Your task to perform on an android device: open app "Facebook Messenger" Image 0: 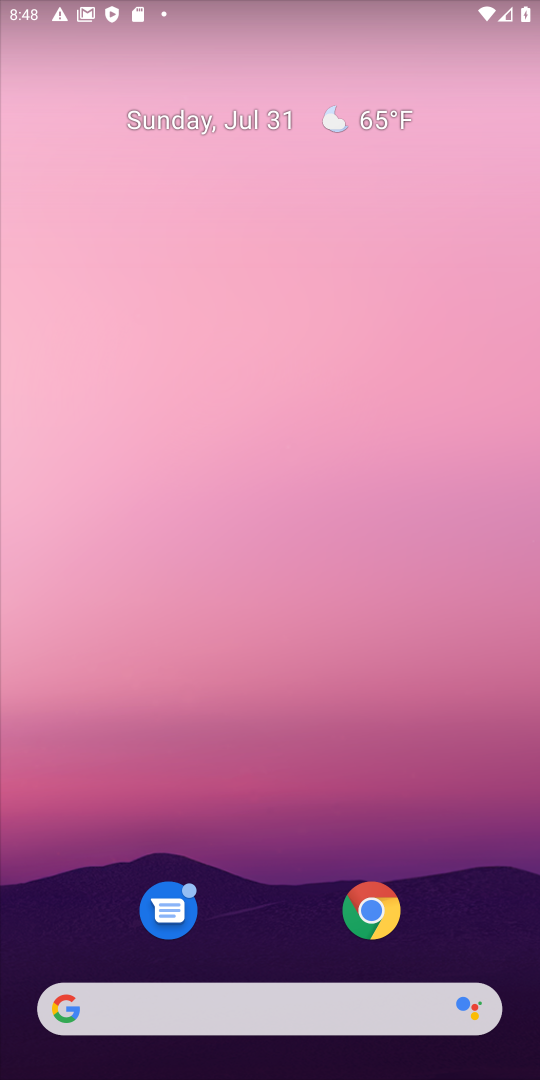
Step 0: drag from (289, 881) to (289, 36)
Your task to perform on an android device: open app "Facebook Messenger" Image 1: 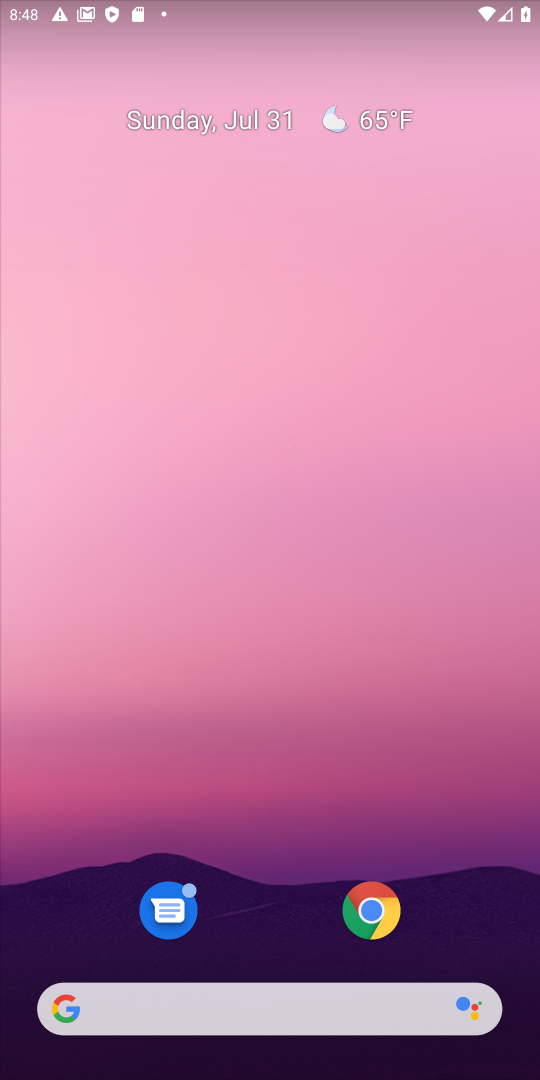
Step 1: drag from (227, 789) to (274, 60)
Your task to perform on an android device: open app "Facebook Messenger" Image 2: 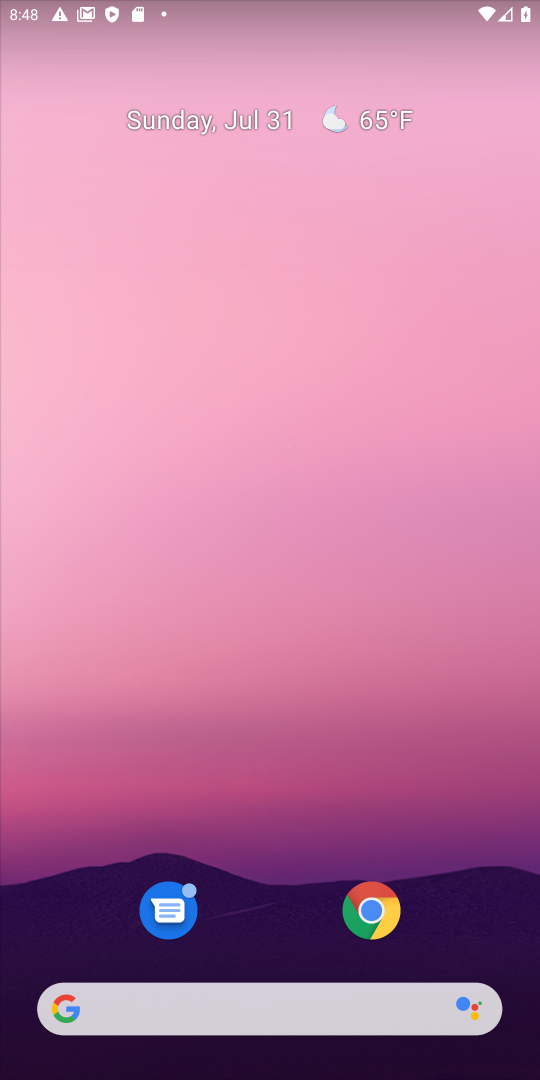
Step 2: drag from (240, 928) to (282, 346)
Your task to perform on an android device: open app "Facebook Messenger" Image 3: 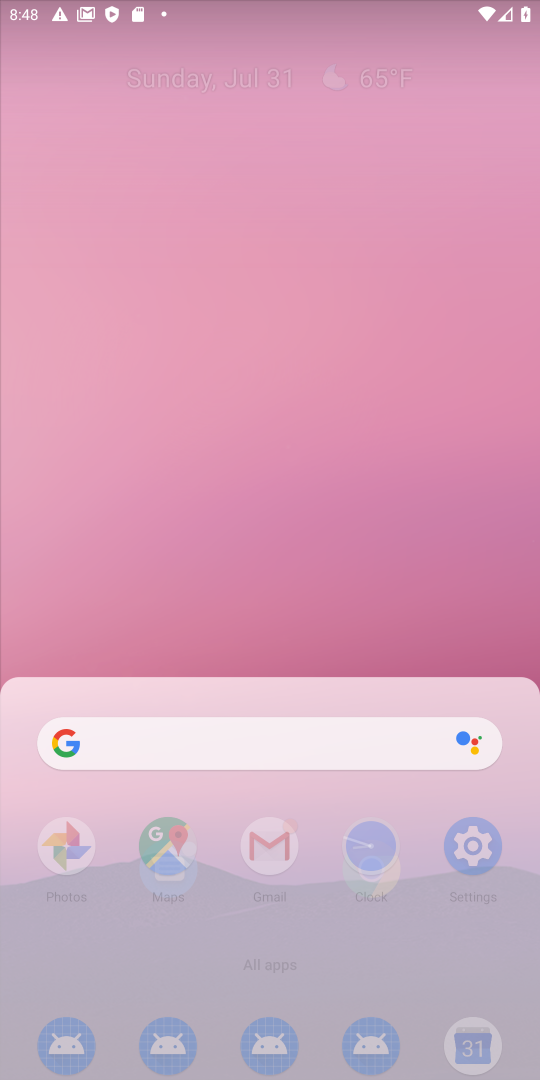
Step 3: drag from (287, 845) to (290, 357)
Your task to perform on an android device: open app "Facebook Messenger" Image 4: 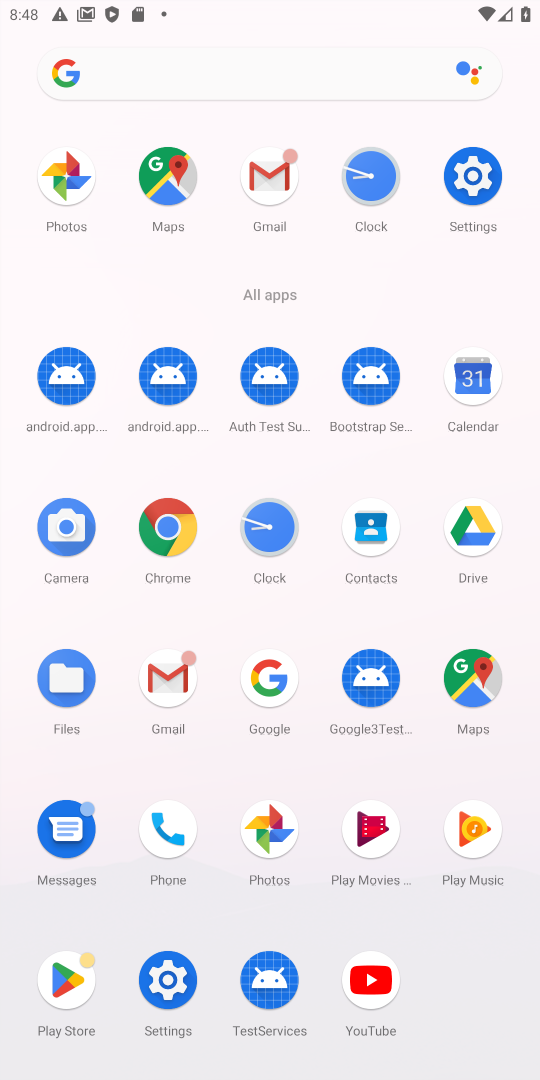
Step 4: click (74, 989)
Your task to perform on an android device: open app "Facebook Messenger" Image 5: 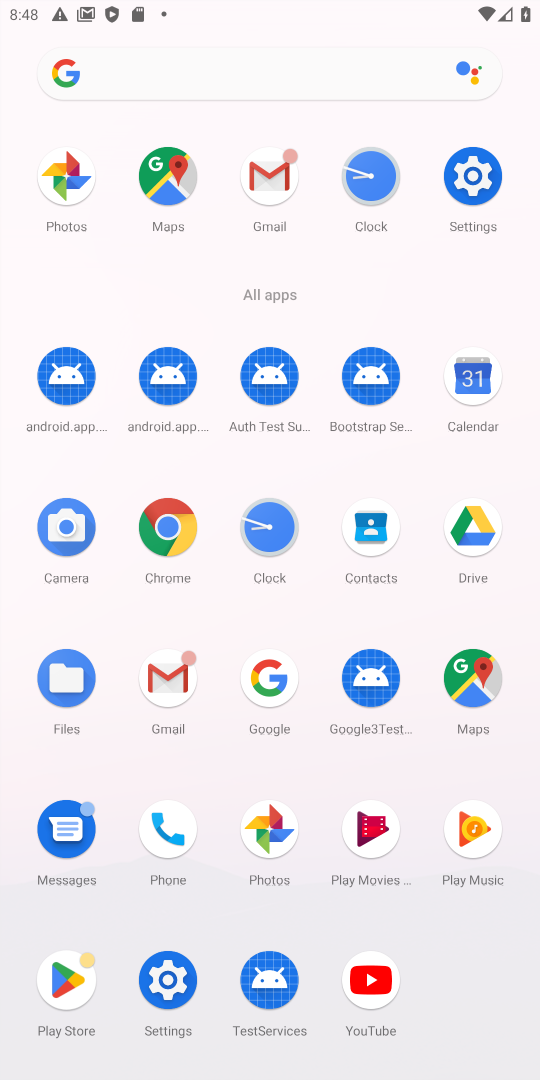
Step 5: click (70, 986)
Your task to perform on an android device: open app "Facebook Messenger" Image 6: 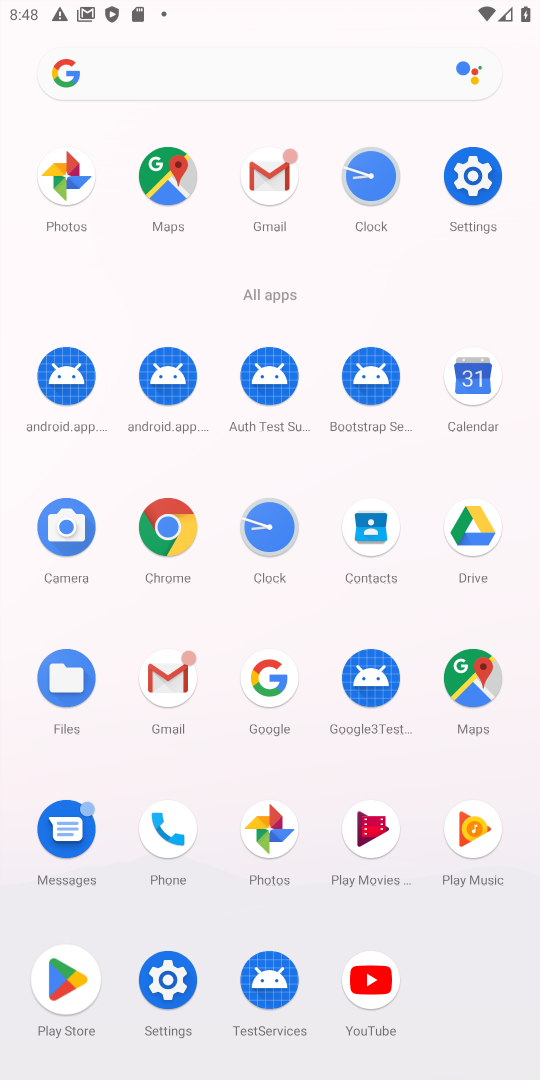
Step 6: click (72, 986)
Your task to perform on an android device: open app "Facebook Messenger" Image 7: 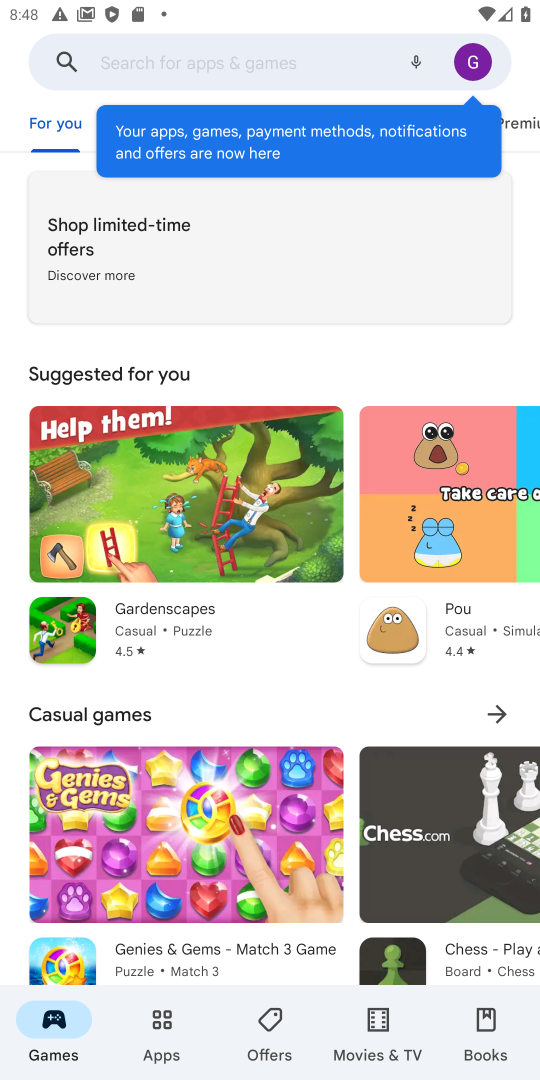
Step 7: click (252, 58)
Your task to perform on an android device: open app "Facebook Messenger" Image 8: 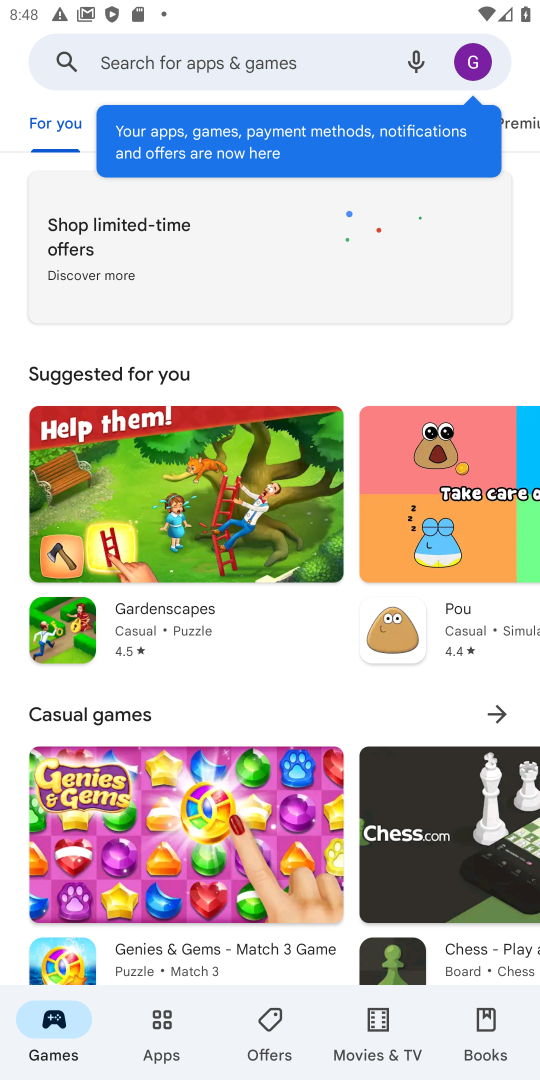
Step 8: click (235, 74)
Your task to perform on an android device: open app "Facebook Messenger" Image 9: 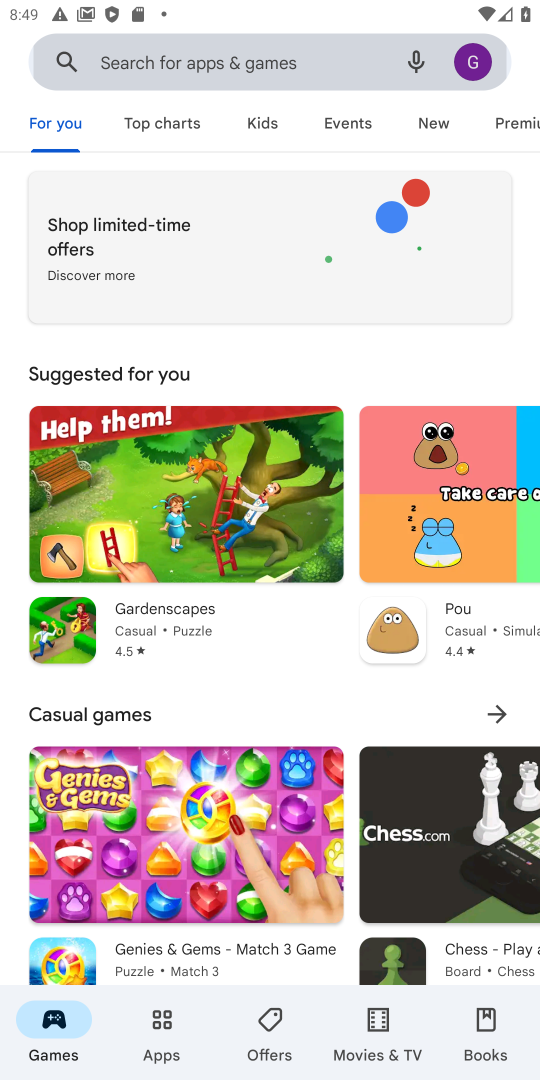
Step 9: click (227, 56)
Your task to perform on an android device: open app "Facebook Messenger" Image 10: 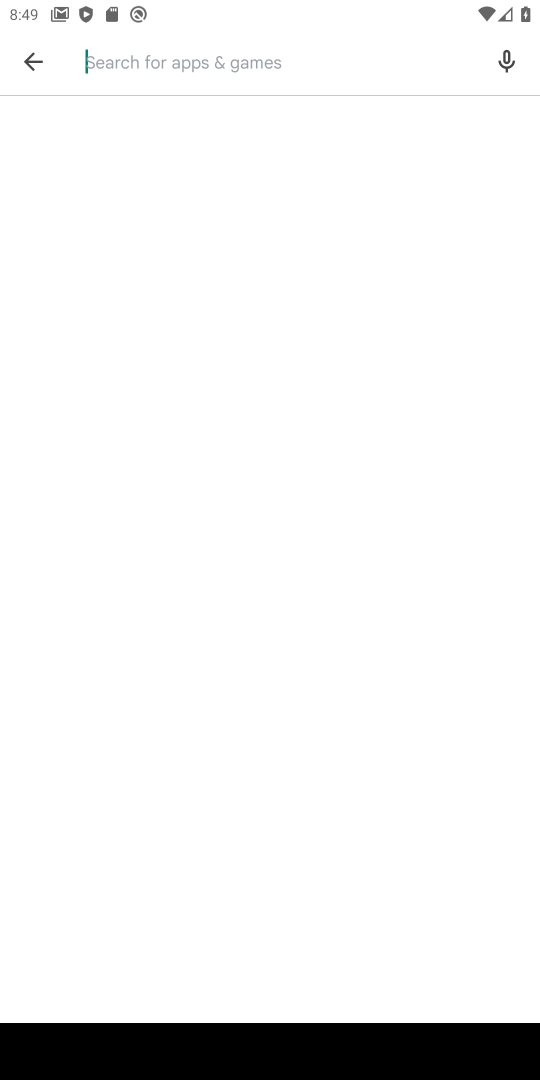
Step 10: type "Facebook messenger"
Your task to perform on an android device: open app "Facebook Messenger" Image 11: 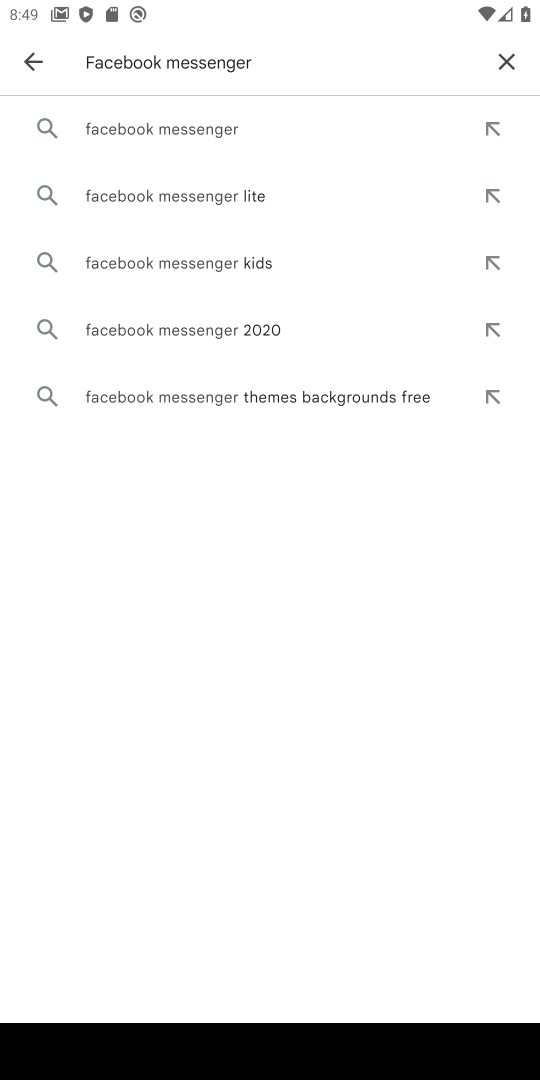
Step 11: click (171, 128)
Your task to perform on an android device: open app "Facebook Messenger" Image 12: 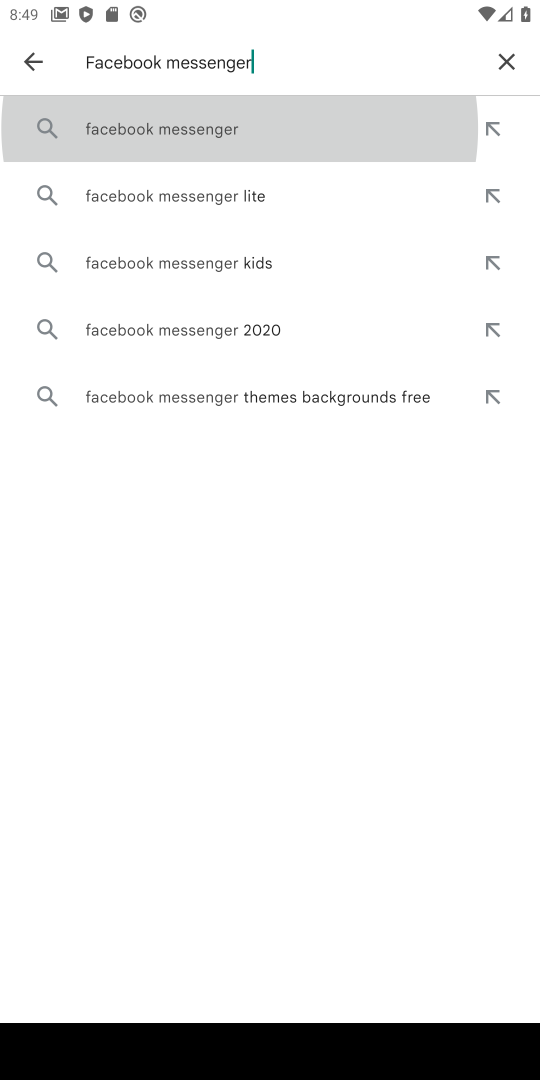
Step 12: click (168, 131)
Your task to perform on an android device: open app "Facebook Messenger" Image 13: 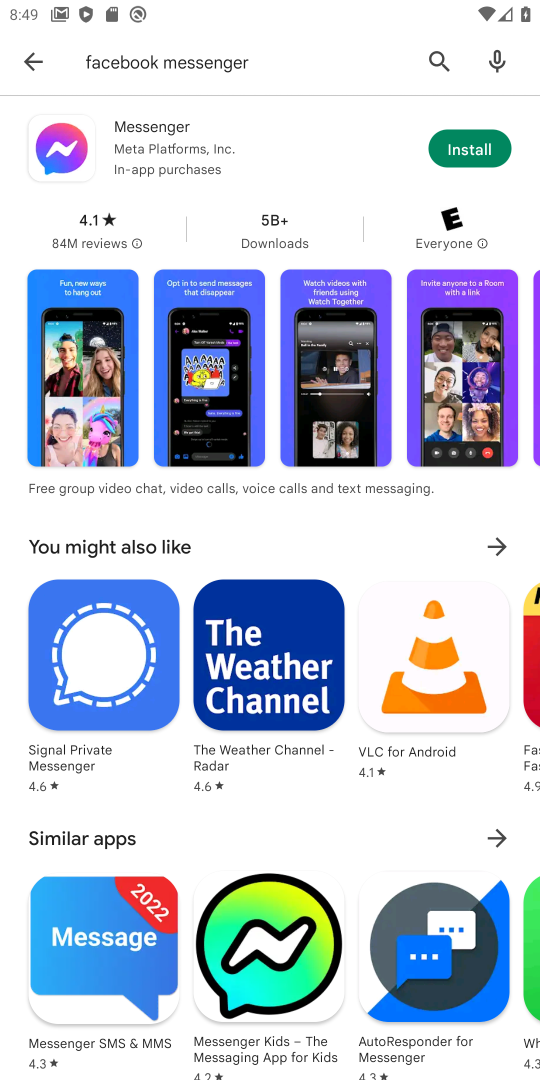
Step 13: click (467, 146)
Your task to perform on an android device: open app "Facebook Messenger" Image 14: 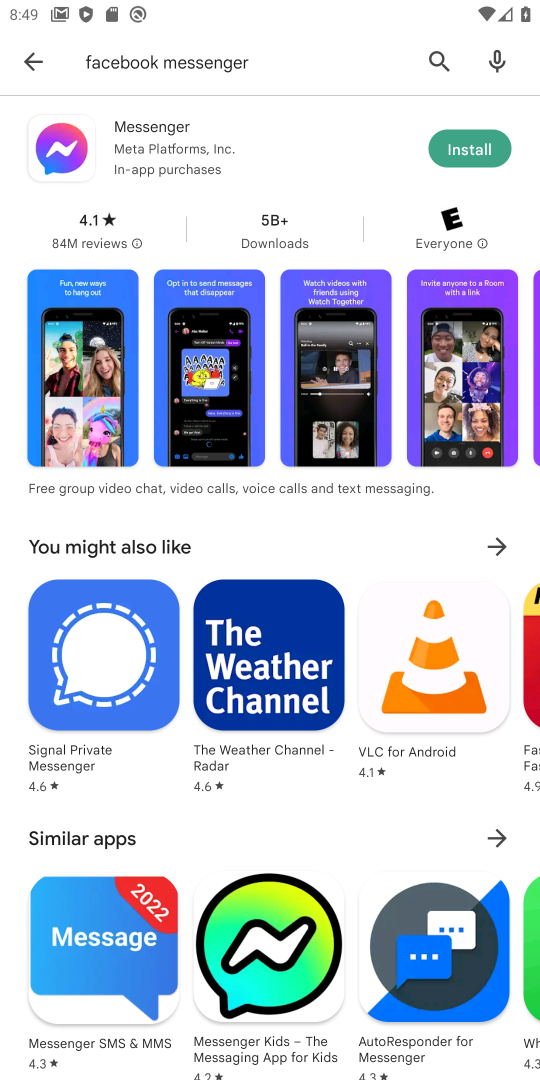
Step 14: click (467, 146)
Your task to perform on an android device: open app "Facebook Messenger" Image 15: 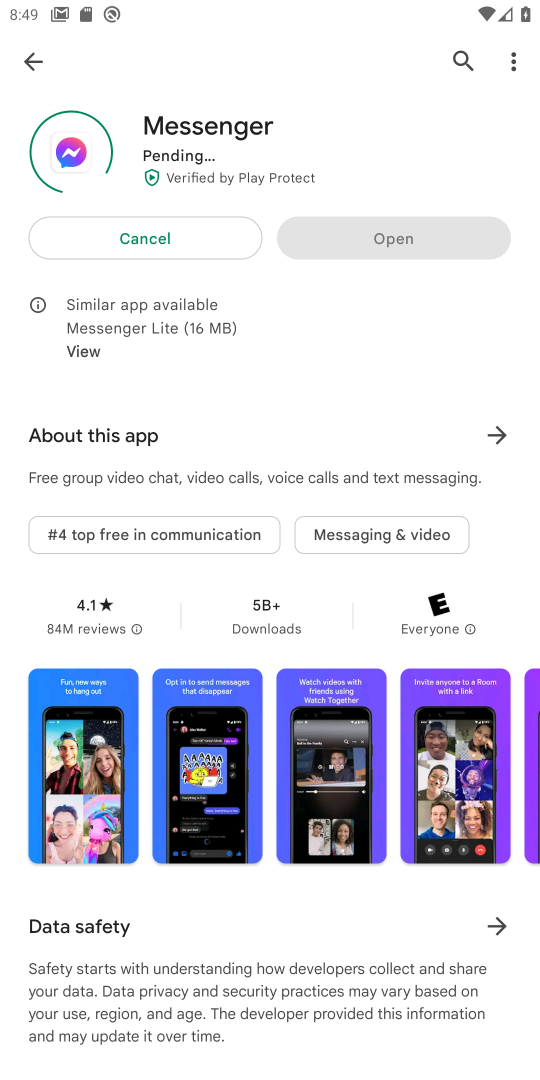
Step 15: task complete